Your task to perform on an android device: Search for Italian restaurants on Maps Image 0: 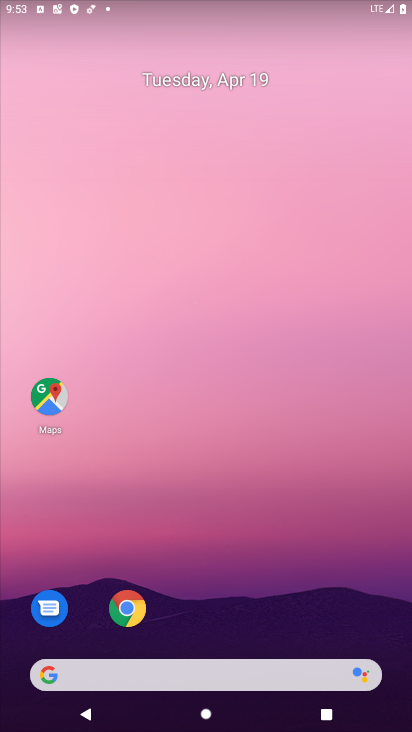
Step 0: drag from (353, 626) to (324, 133)
Your task to perform on an android device: Search for Italian restaurants on Maps Image 1: 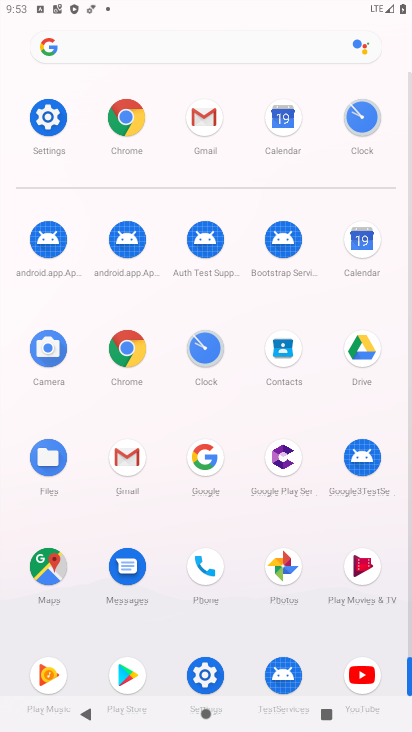
Step 1: click (45, 567)
Your task to perform on an android device: Search for Italian restaurants on Maps Image 2: 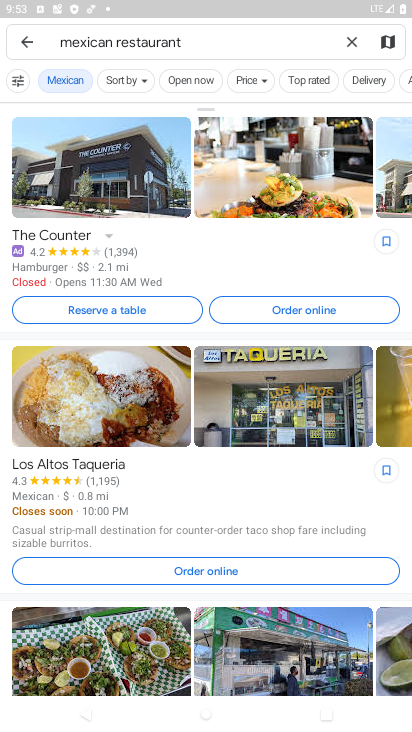
Step 2: click (351, 39)
Your task to perform on an android device: Search for Italian restaurants on Maps Image 3: 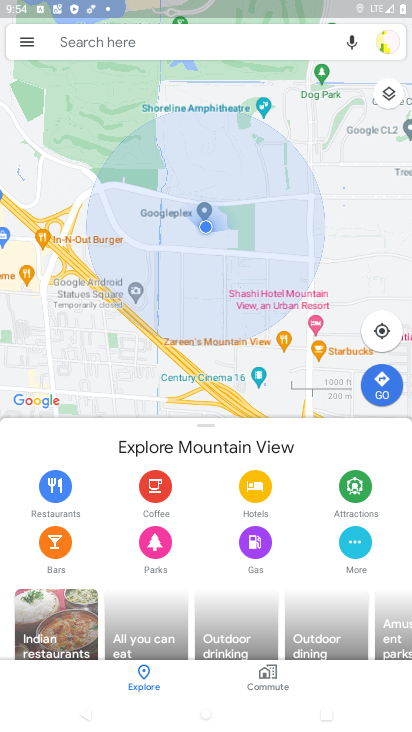
Step 3: click (118, 40)
Your task to perform on an android device: Search for Italian restaurants on Maps Image 4: 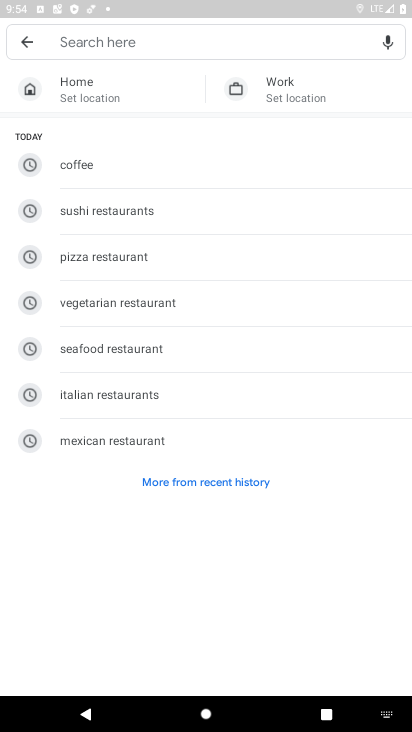
Step 4: type "italian restaurants"
Your task to perform on an android device: Search for Italian restaurants on Maps Image 5: 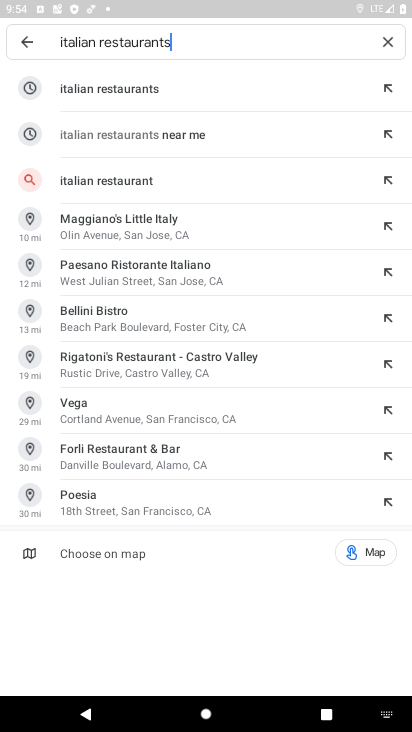
Step 5: click (107, 88)
Your task to perform on an android device: Search for Italian restaurants on Maps Image 6: 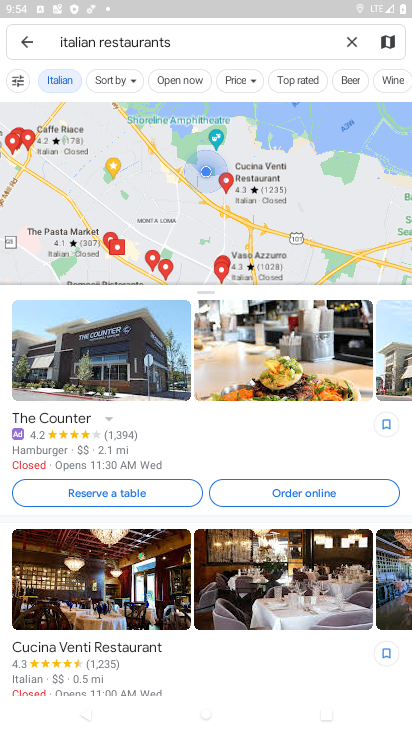
Step 6: task complete